Your task to perform on an android device: Open Wikipedia Image 0: 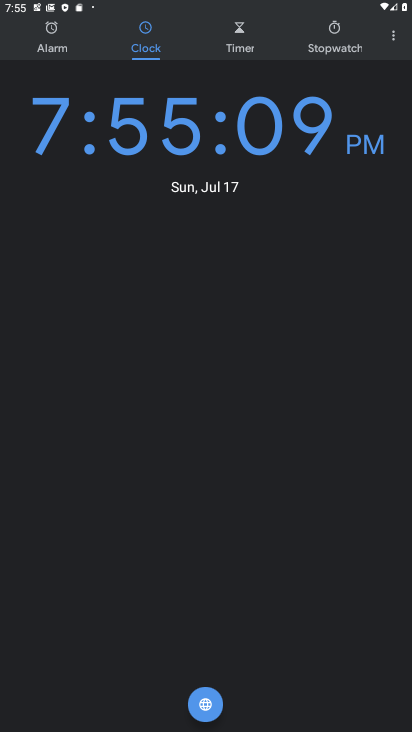
Step 0: press home button
Your task to perform on an android device: Open Wikipedia Image 1: 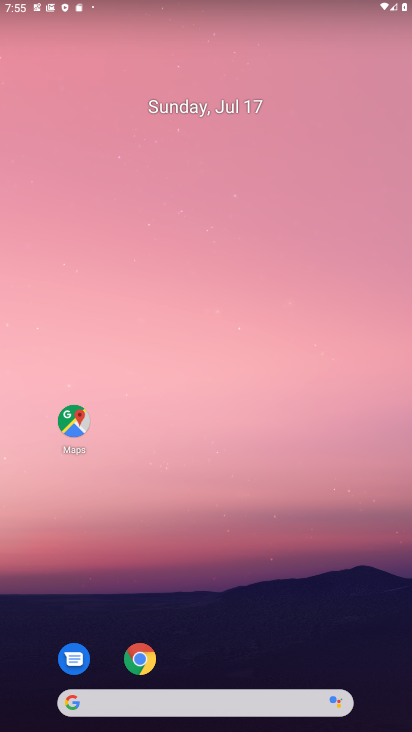
Step 1: click (150, 654)
Your task to perform on an android device: Open Wikipedia Image 2: 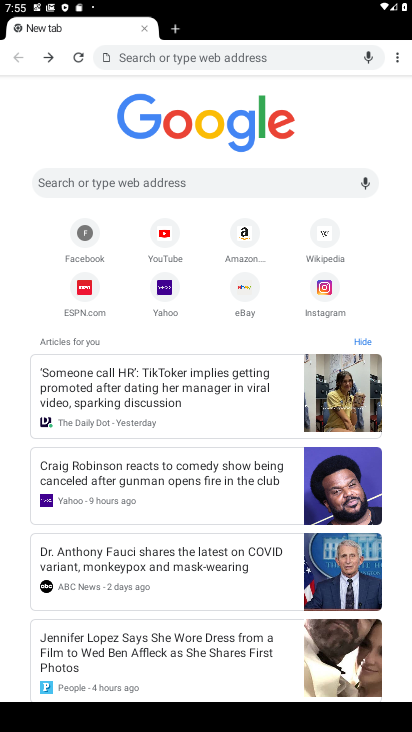
Step 2: click (337, 230)
Your task to perform on an android device: Open Wikipedia Image 3: 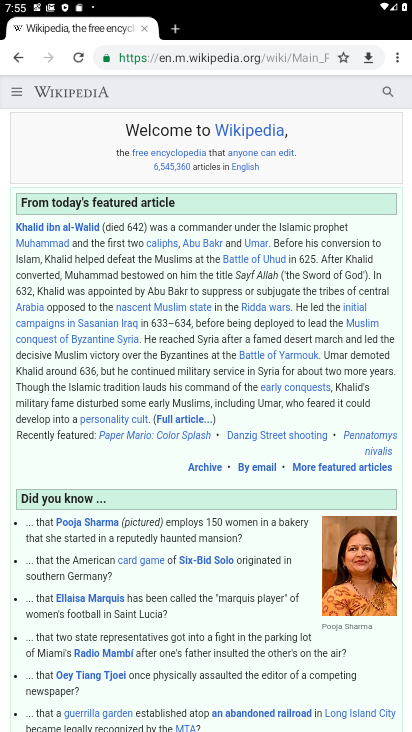
Step 3: task complete